Your task to perform on an android device: Open location settings Image 0: 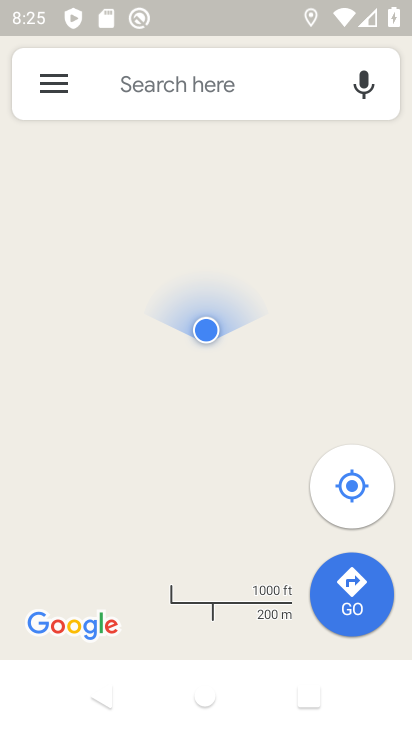
Step 0: press home button
Your task to perform on an android device: Open location settings Image 1: 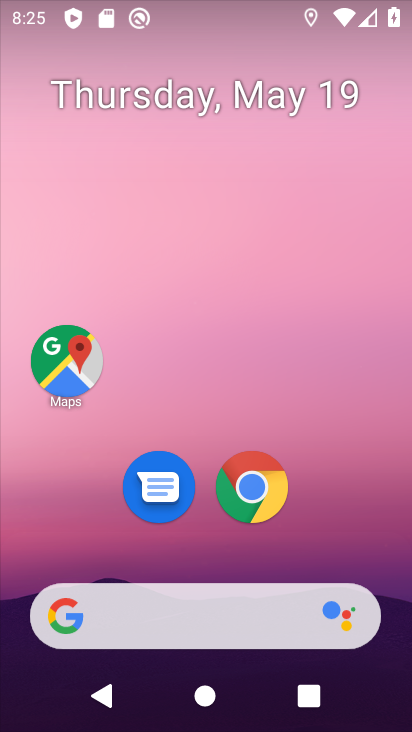
Step 1: drag from (172, 552) to (174, 35)
Your task to perform on an android device: Open location settings Image 2: 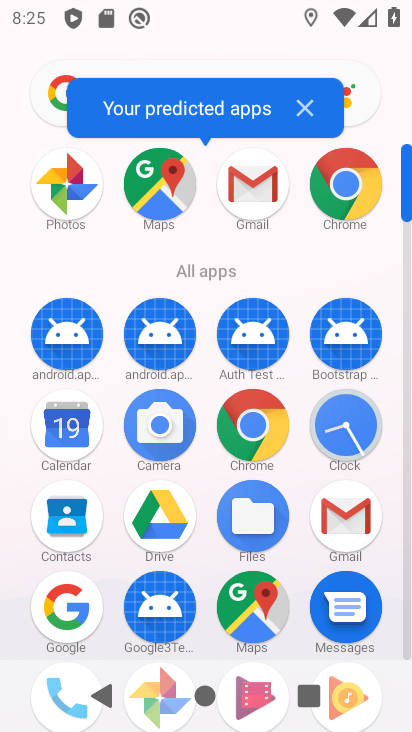
Step 2: drag from (115, 644) to (88, 46)
Your task to perform on an android device: Open location settings Image 3: 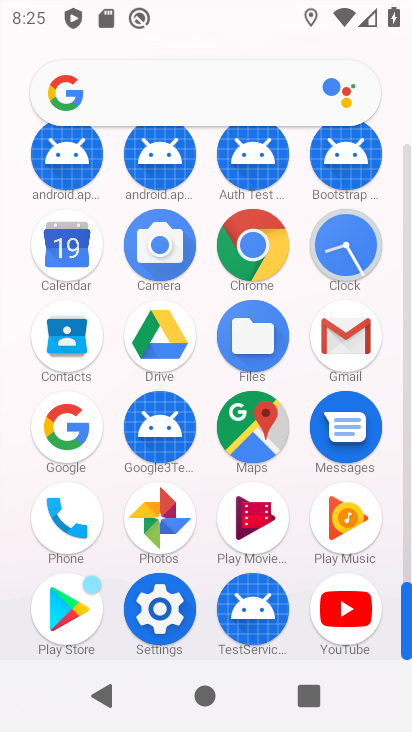
Step 3: click (156, 594)
Your task to perform on an android device: Open location settings Image 4: 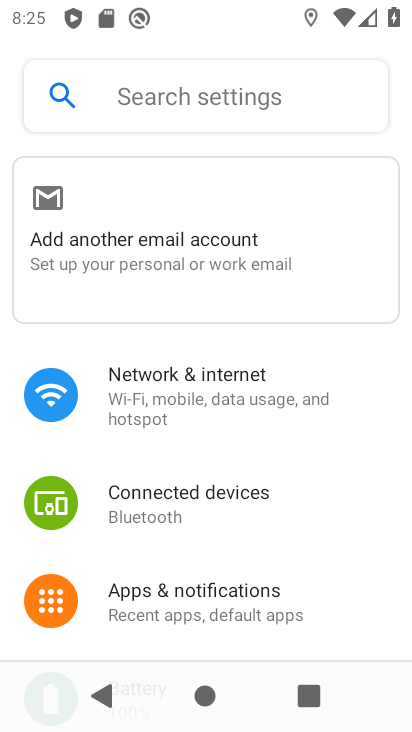
Step 4: drag from (194, 561) to (144, 126)
Your task to perform on an android device: Open location settings Image 5: 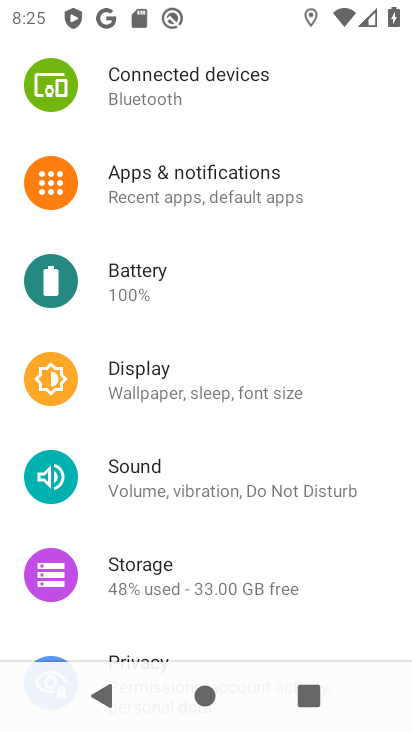
Step 5: drag from (164, 601) to (150, 152)
Your task to perform on an android device: Open location settings Image 6: 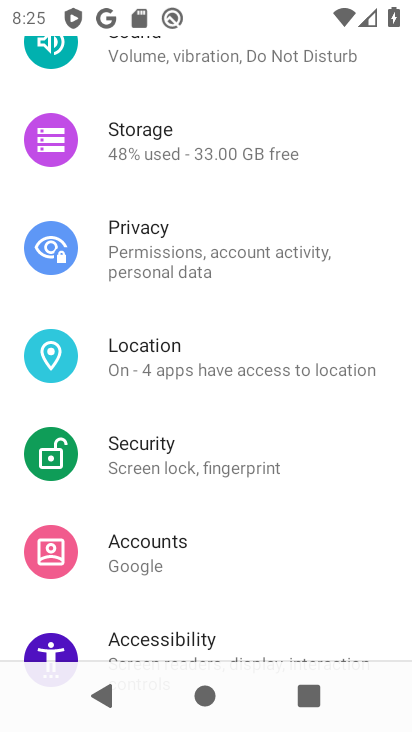
Step 6: click (140, 376)
Your task to perform on an android device: Open location settings Image 7: 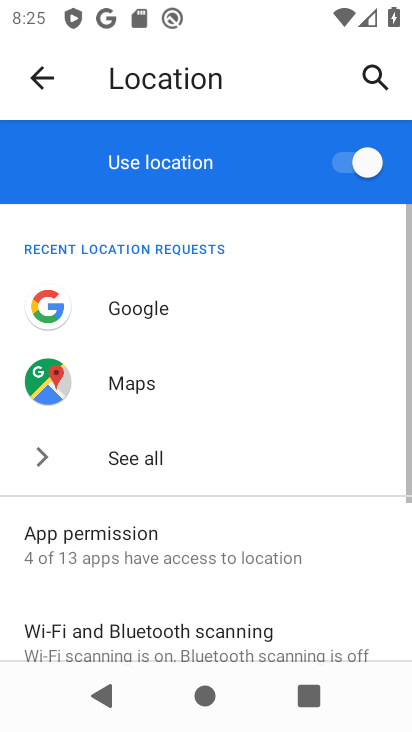
Step 7: task complete